Your task to perform on an android device: turn off data saver in the chrome app Image 0: 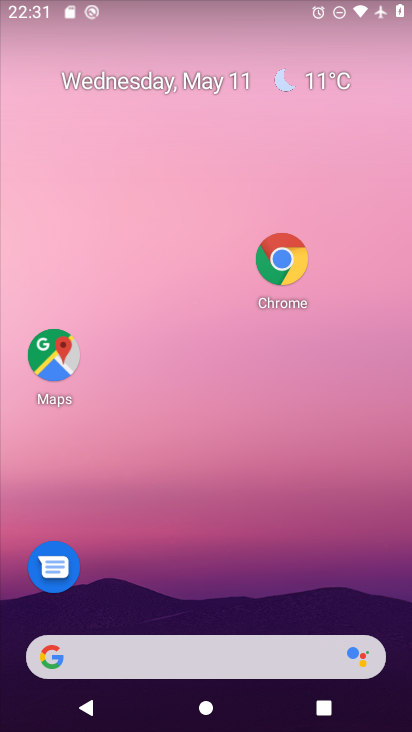
Step 0: drag from (150, 657) to (259, 215)
Your task to perform on an android device: turn off data saver in the chrome app Image 1: 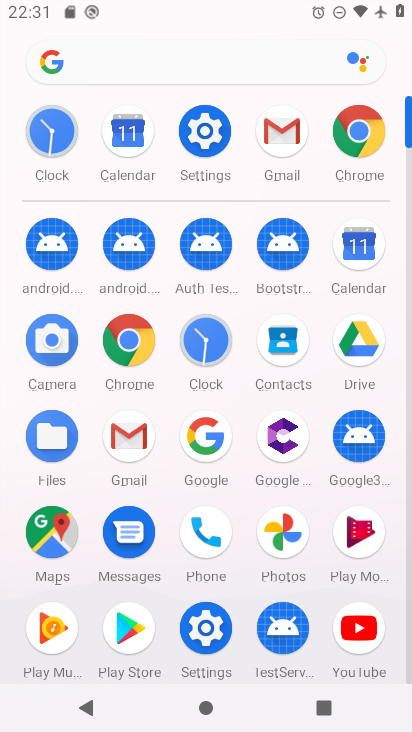
Step 1: click (359, 142)
Your task to perform on an android device: turn off data saver in the chrome app Image 2: 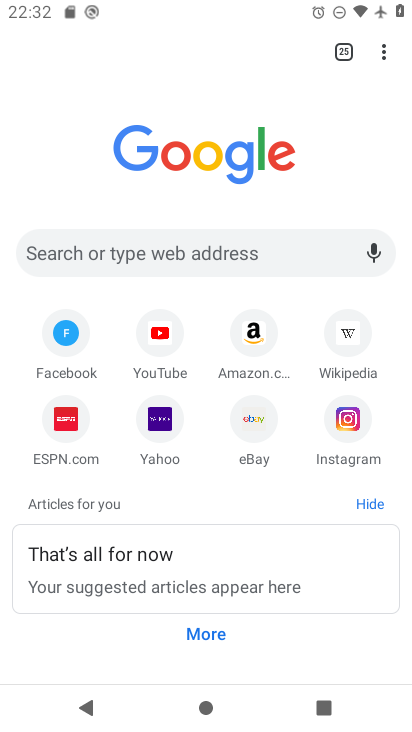
Step 2: drag from (383, 57) to (285, 432)
Your task to perform on an android device: turn off data saver in the chrome app Image 3: 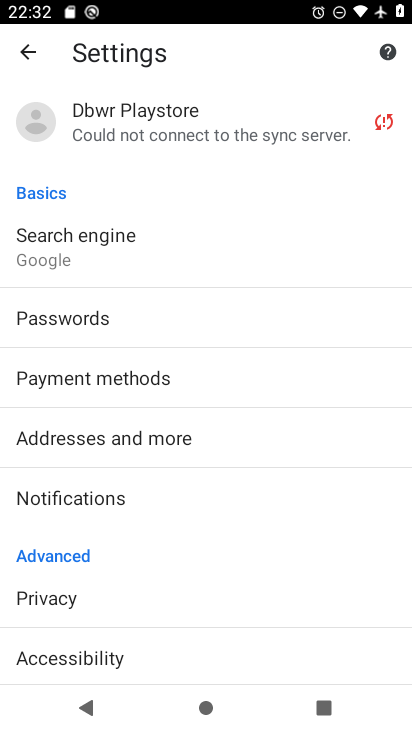
Step 3: drag from (176, 620) to (276, 219)
Your task to perform on an android device: turn off data saver in the chrome app Image 4: 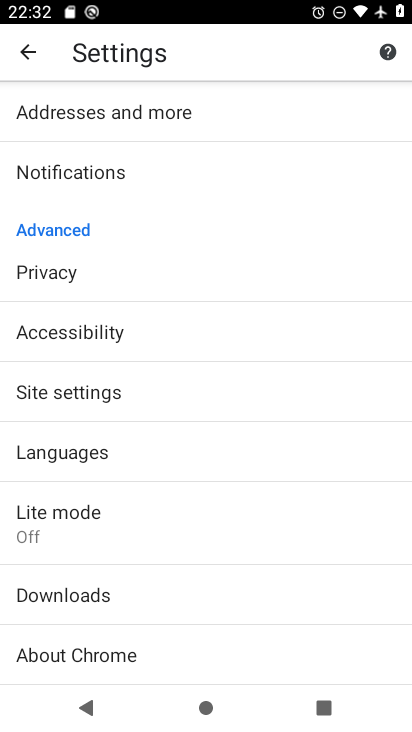
Step 4: click (96, 529)
Your task to perform on an android device: turn off data saver in the chrome app Image 5: 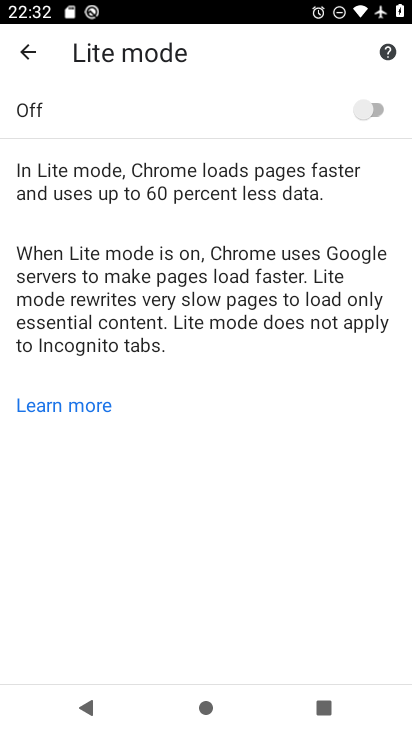
Step 5: task complete